Your task to perform on an android device: Open maps Image 0: 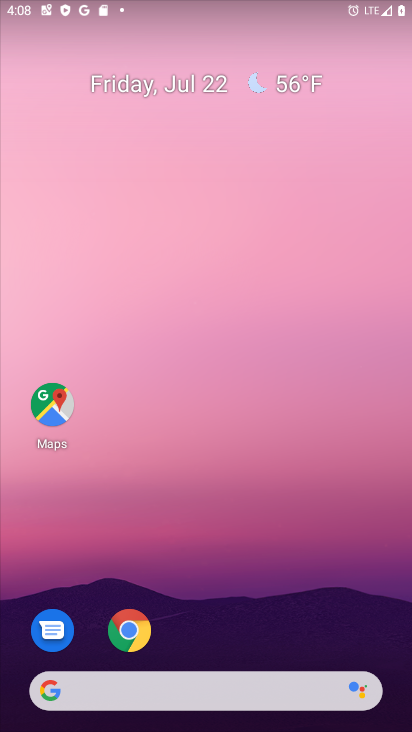
Step 0: click (66, 394)
Your task to perform on an android device: Open maps Image 1: 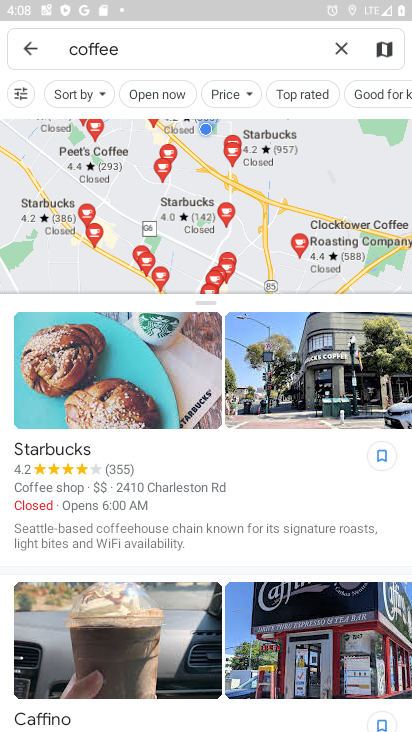
Step 1: task complete